Your task to perform on an android device: View the shopping cart on ebay. Search for "macbook pro" on ebay, select the first entry, and add it to the cart. Image 0: 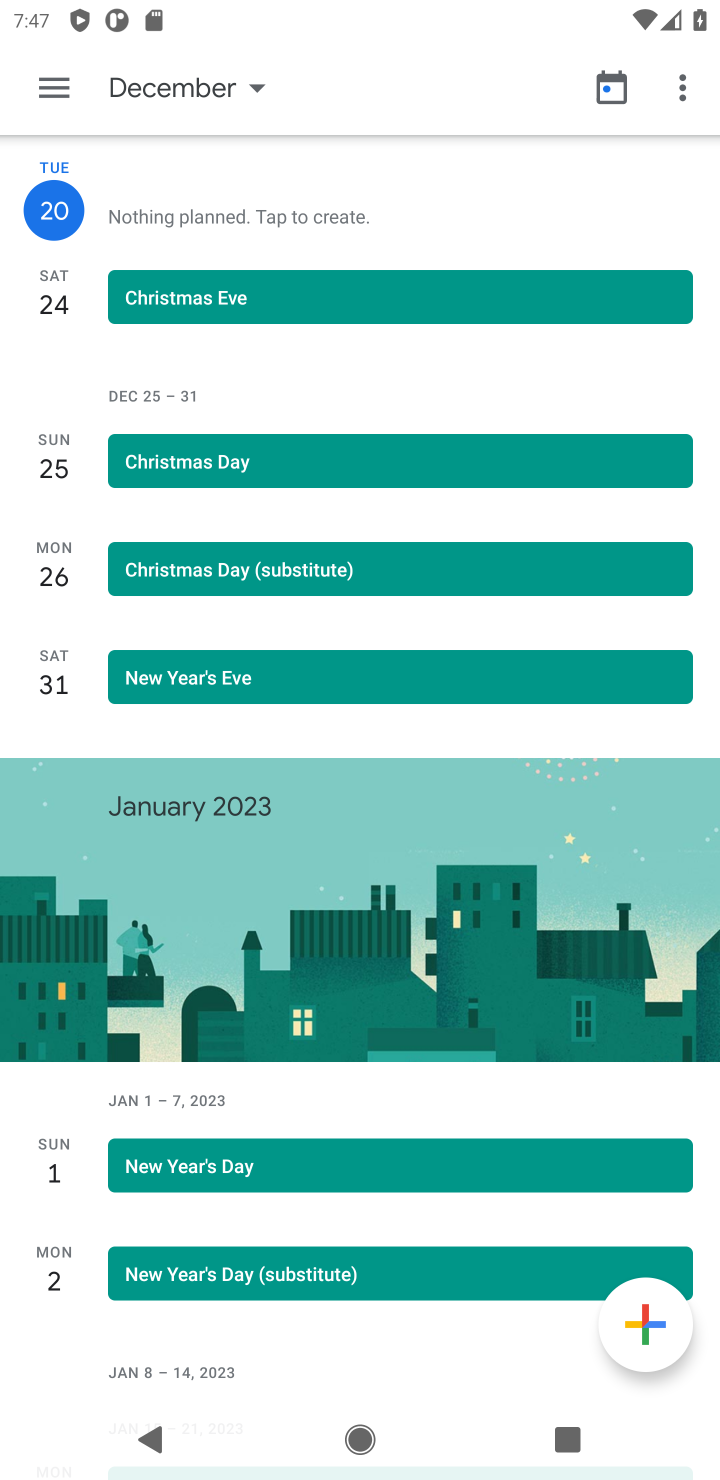
Step 0: press home button
Your task to perform on an android device: View the shopping cart on ebay. Search for "macbook pro" on ebay, select the first entry, and add it to the cart. Image 1: 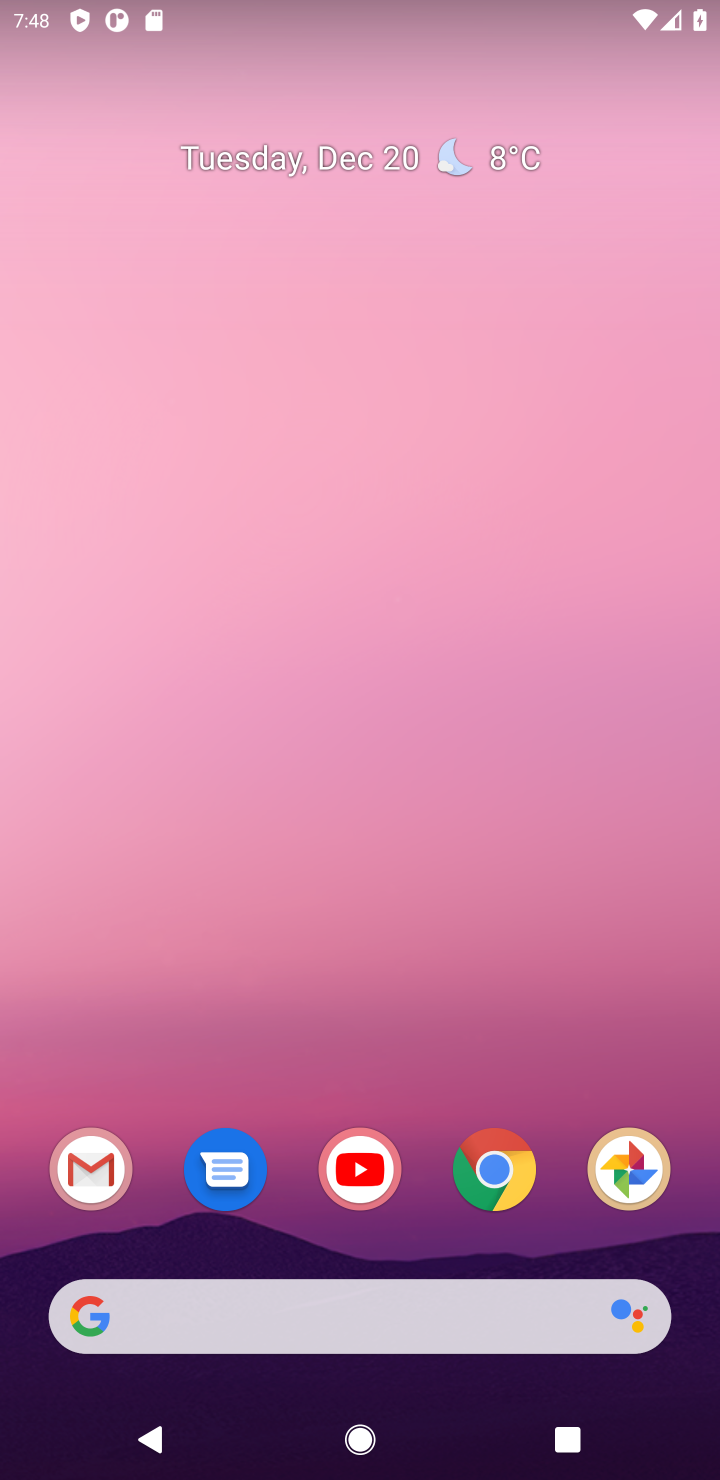
Step 1: click (454, 1192)
Your task to perform on an android device: View the shopping cart on ebay. Search for "macbook pro" on ebay, select the first entry, and add it to the cart. Image 2: 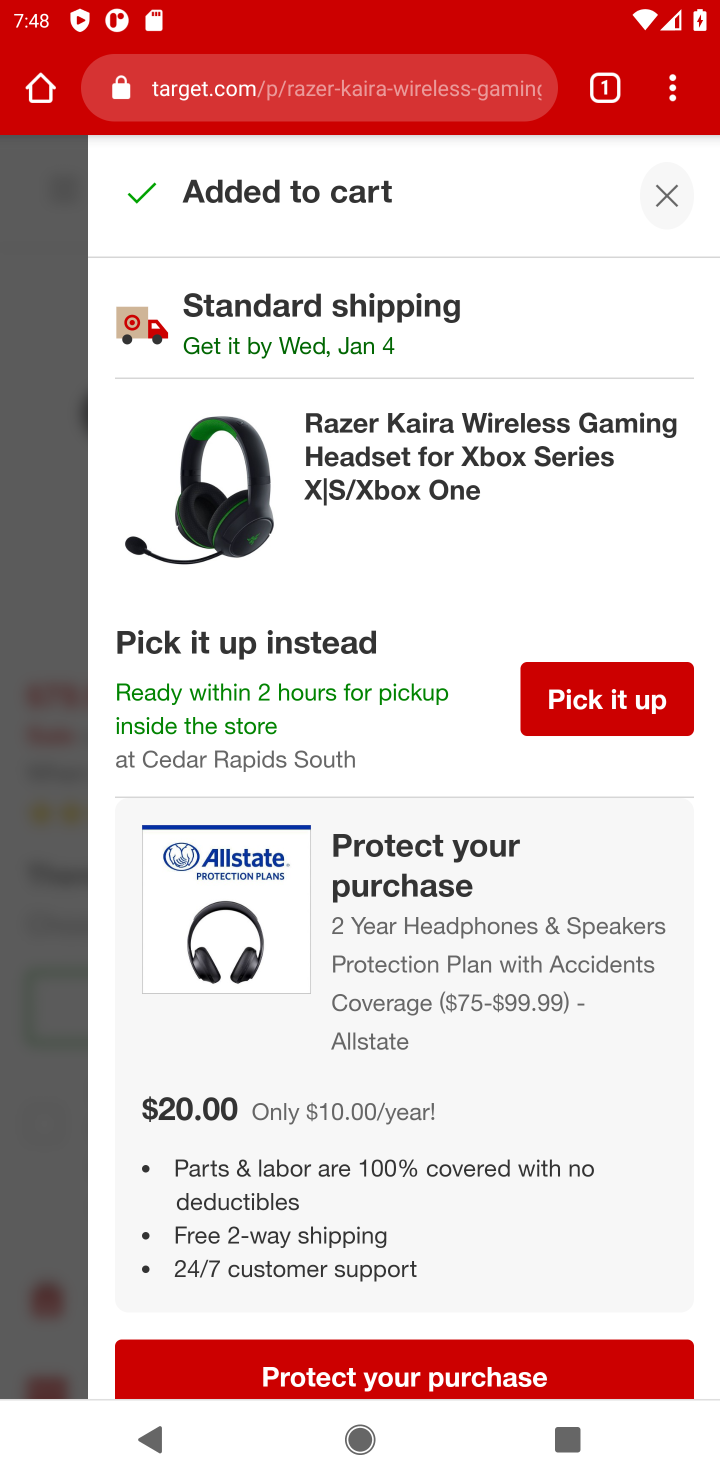
Step 2: task complete